Your task to perform on an android device: Do I have any events tomorrow? Image 0: 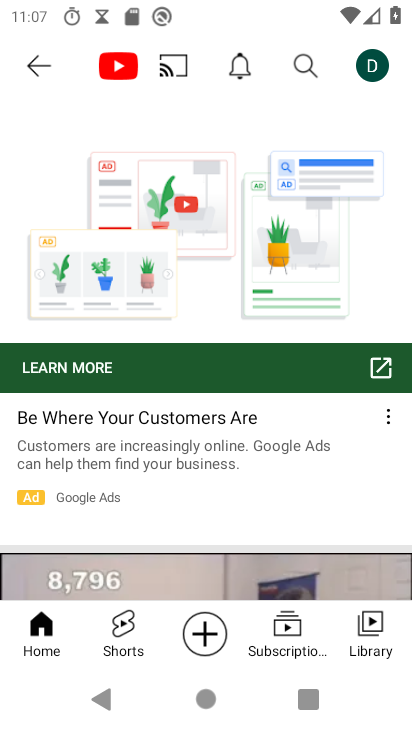
Step 0: press home button
Your task to perform on an android device: Do I have any events tomorrow? Image 1: 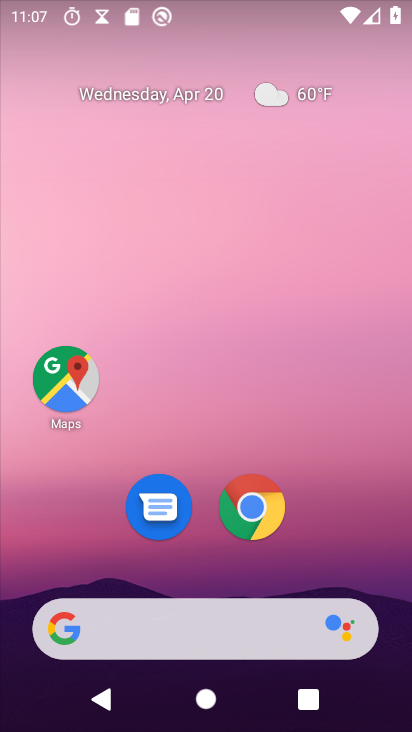
Step 1: drag from (203, 574) to (256, 102)
Your task to perform on an android device: Do I have any events tomorrow? Image 2: 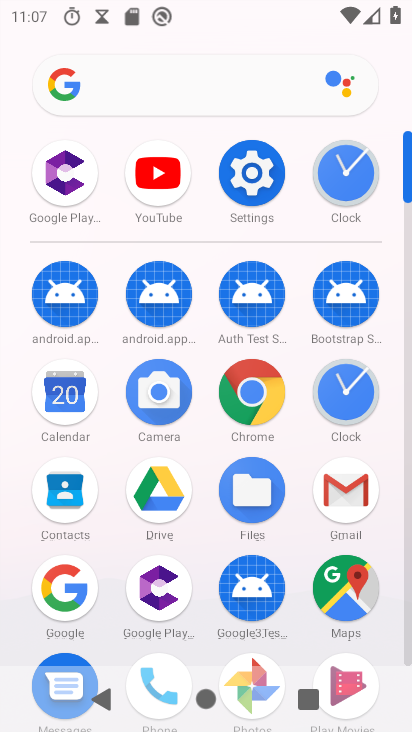
Step 2: click (65, 390)
Your task to perform on an android device: Do I have any events tomorrow? Image 3: 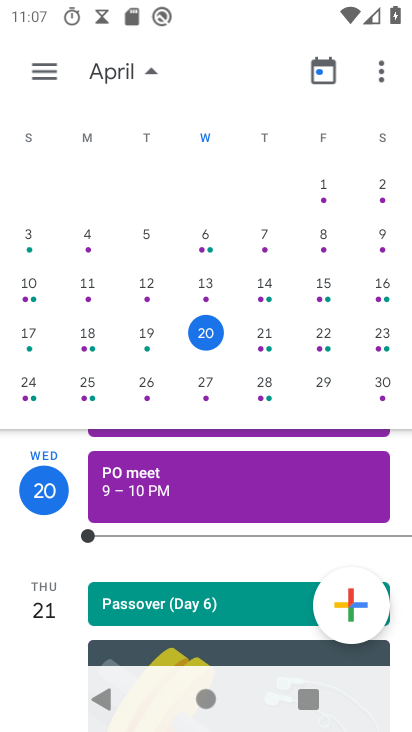
Step 3: click (262, 336)
Your task to perform on an android device: Do I have any events tomorrow? Image 4: 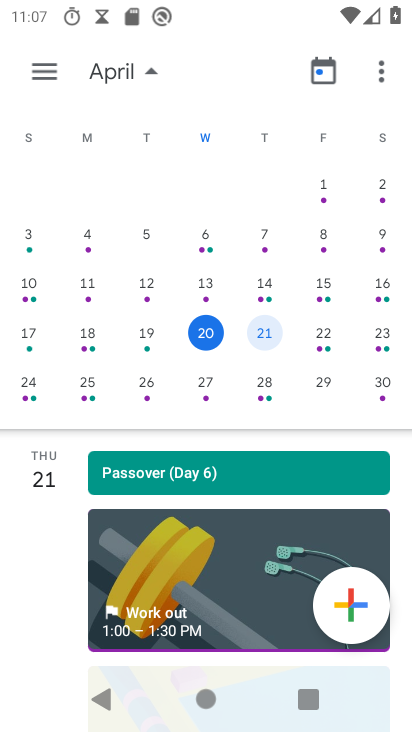
Step 4: task complete